Your task to perform on an android device: Search for Mexican restaurants on Maps Image 0: 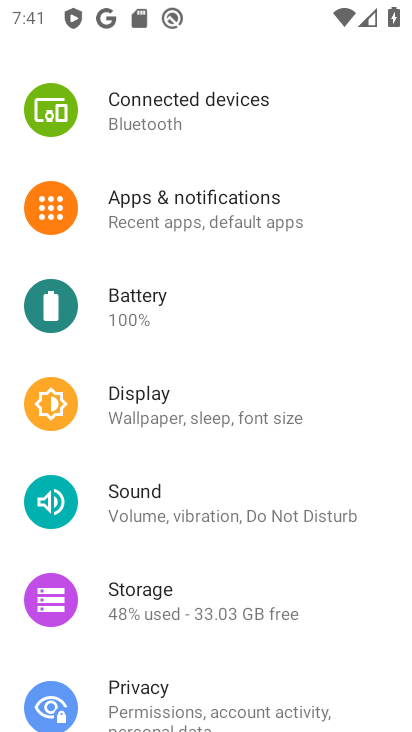
Step 0: press home button
Your task to perform on an android device: Search for Mexican restaurants on Maps Image 1: 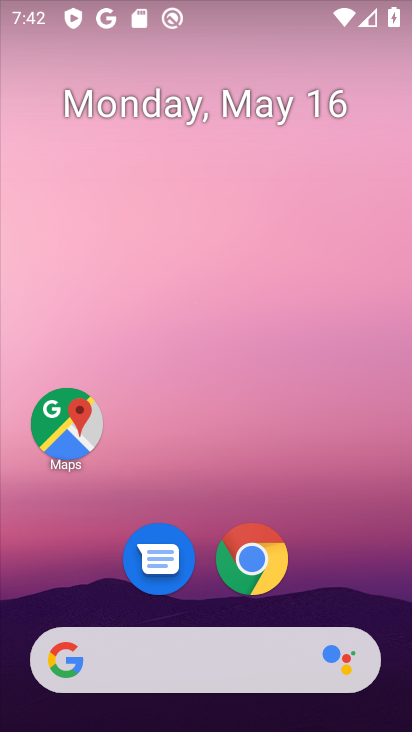
Step 1: drag from (343, 539) to (317, 212)
Your task to perform on an android device: Search for Mexican restaurants on Maps Image 2: 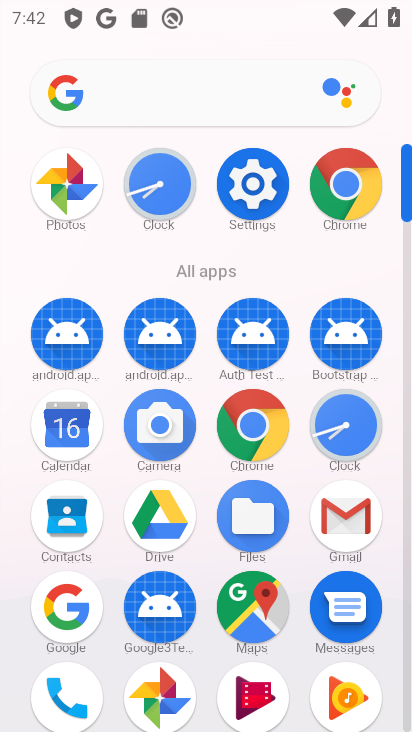
Step 2: click (263, 613)
Your task to perform on an android device: Search for Mexican restaurants on Maps Image 3: 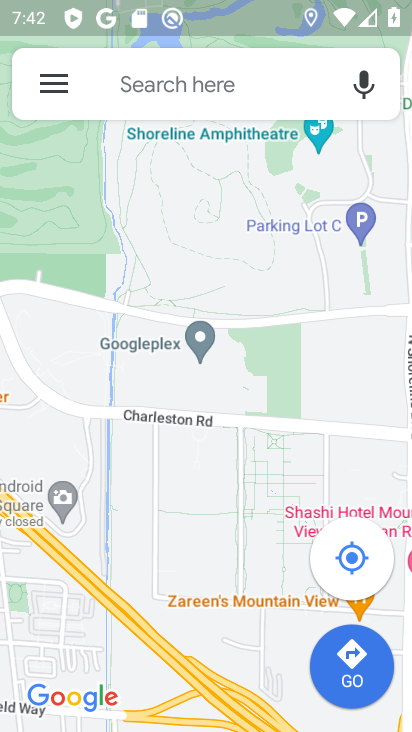
Step 3: click (155, 82)
Your task to perform on an android device: Search for Mexican restaurants on Maps Image 4: 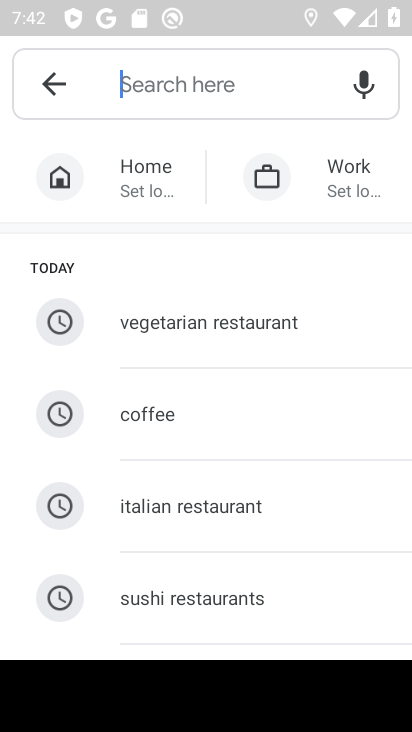
Step 4: type "mexican restaurants "
Your task to perform on an android device: Search for Mexican restaurants on Maps Image 5: 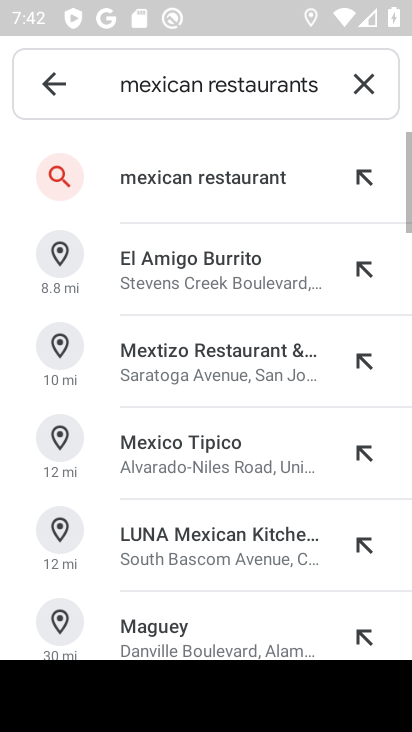
Step 5: click (252, 99)
Your task to perform on an android device: Search for Mexican restaurants on Maps Image 6: 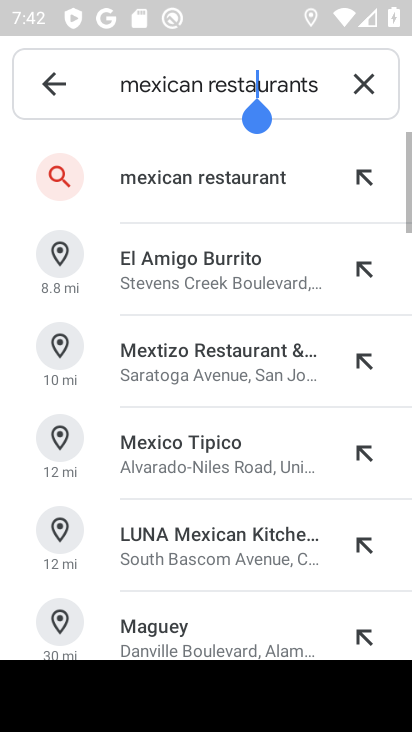
Step 6: click (192, 199)
Your task to perform on an android device: Search for Mexican restaurants on Maps Image 7: 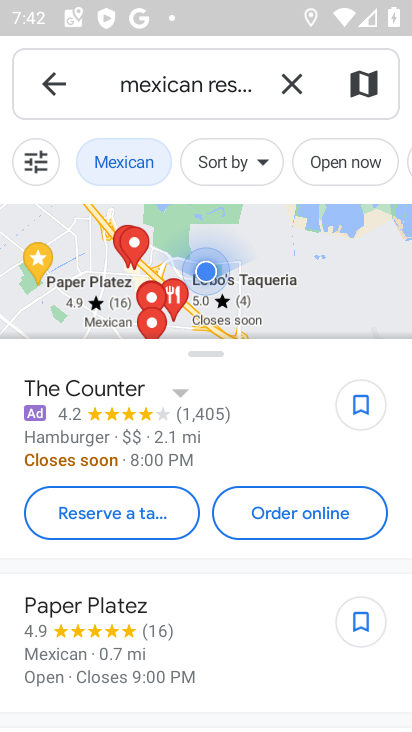
Step 7: task complete